Your task to perform on an android device: Open accessibility settings Image 0: 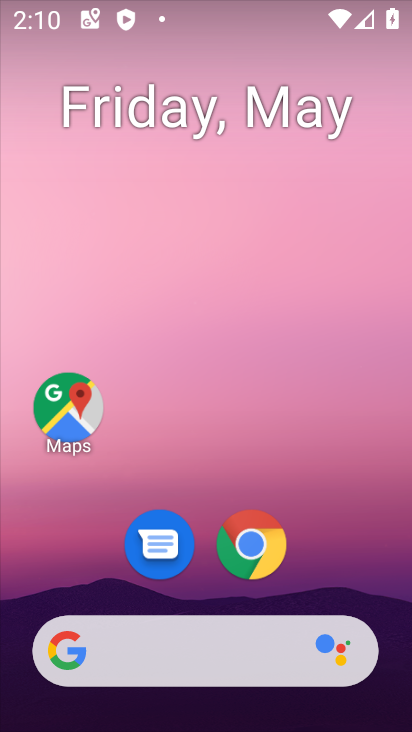
Step 0: drag from (197, 582) to (221, 128)
Your task to perform on an android device: Open accessibility settings Image 1: 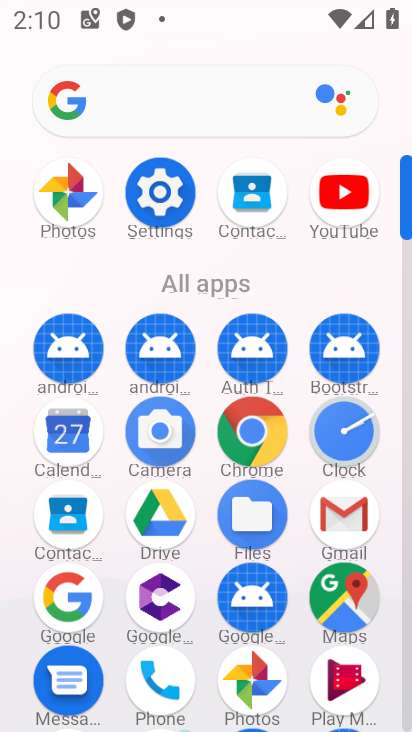
Step 1: click (138, 190)
Your task to perform on an android device: Open accessibility settings Image 2: 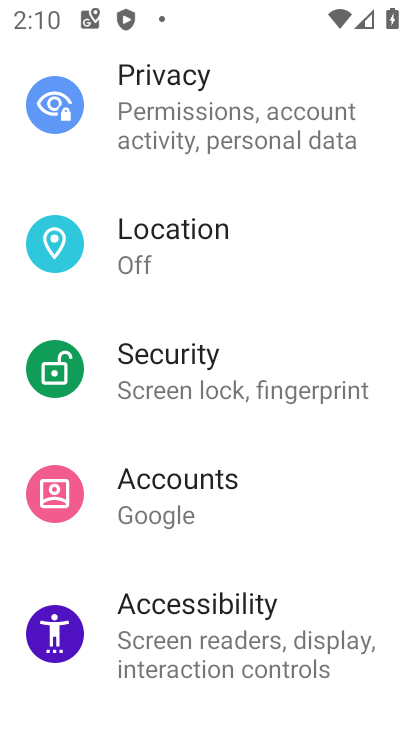
Step 2: drag from (170, 627) to (245, 234)
Your task to perform on an android device: Open accessibility settings Image 3: 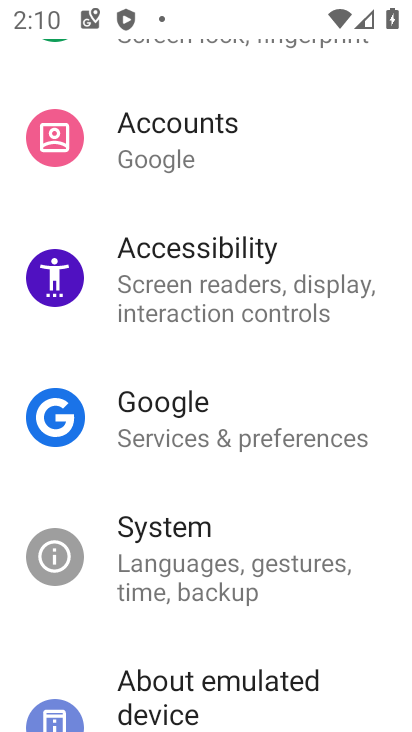
Step 3: drag from (239, 575) to (296, 292)
Your task to perform on an android device: Open accessibility settings Image 4: 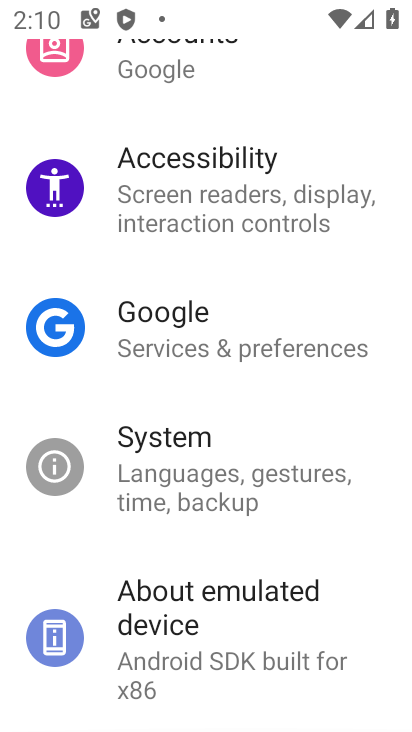
Step 4: click (228, 216)
Your task to perform on an android device: Open accessibility settings Image 5: 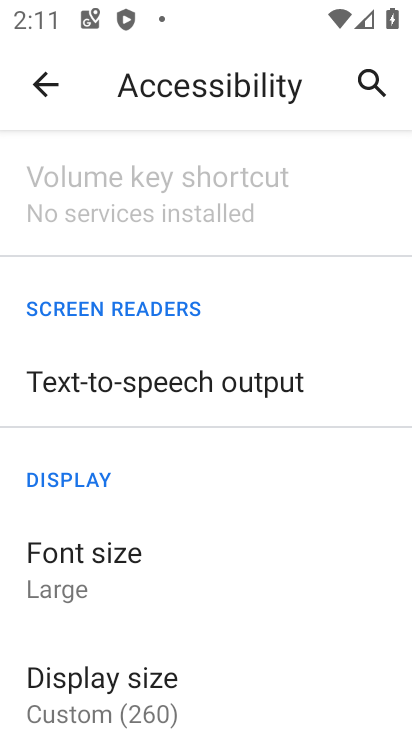
Step 5: task complete